Your task to perform on an android device: empty trash in the gmail app Image 0: 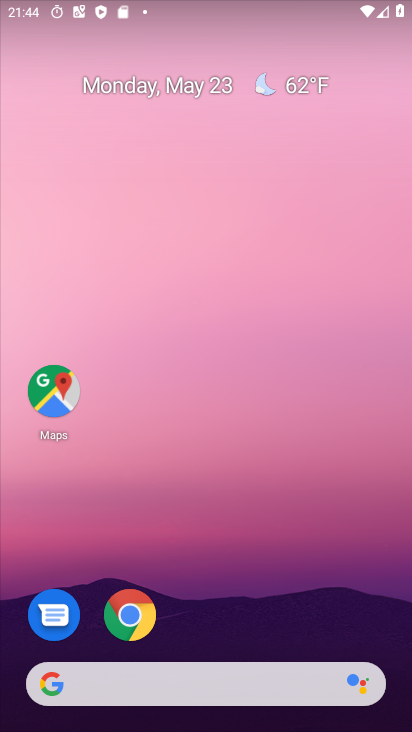
Step 0: drag from (265, 548) to (262, 115)
Your task to perform on an android device: empty trash in the gmail app Image 1: 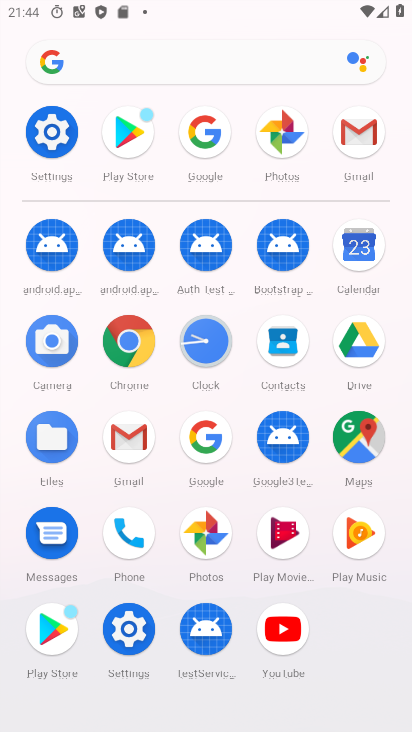
Step 1: click (133, 437)
Your task to perform on an android device: empty trash in the gmail app Image 2: 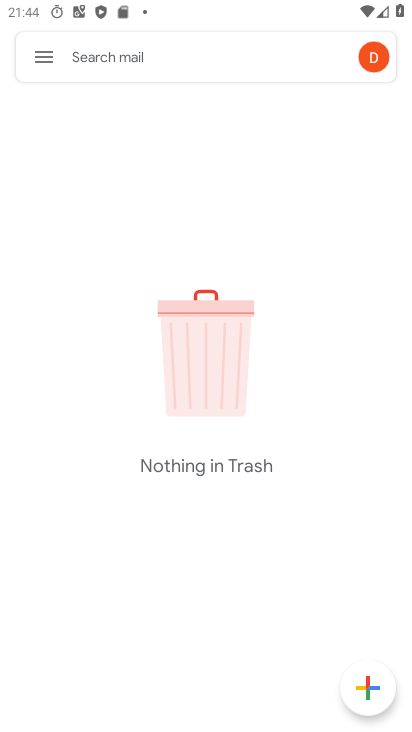
Step 2: click (41, 63)
Your task to perform on an android device: empty trash in the gmail app Image 3: 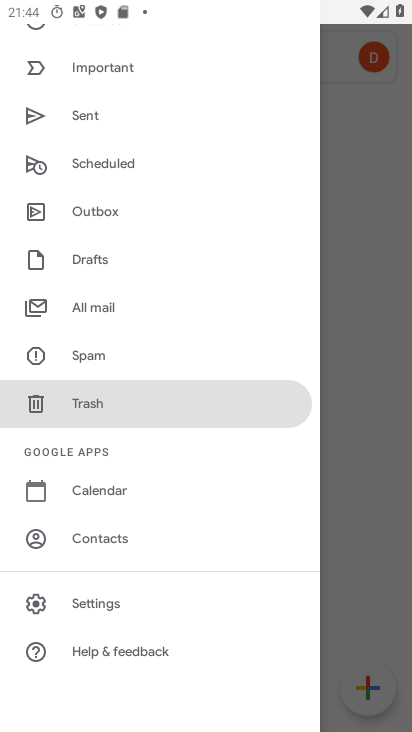
Step 3: drag from (151, 239) to (166, 352)
Your task to perform on an android device: empty trash in the gmail app Image 4: 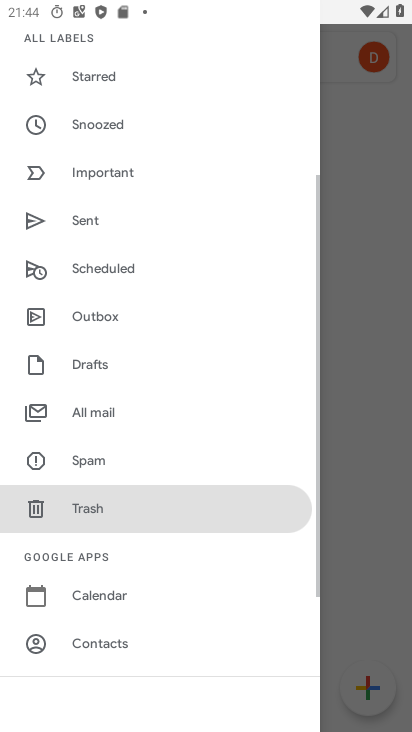
Step 4: click (97, 502)
Your task to perform on an android device: empty trash in the gmail app Image 5: 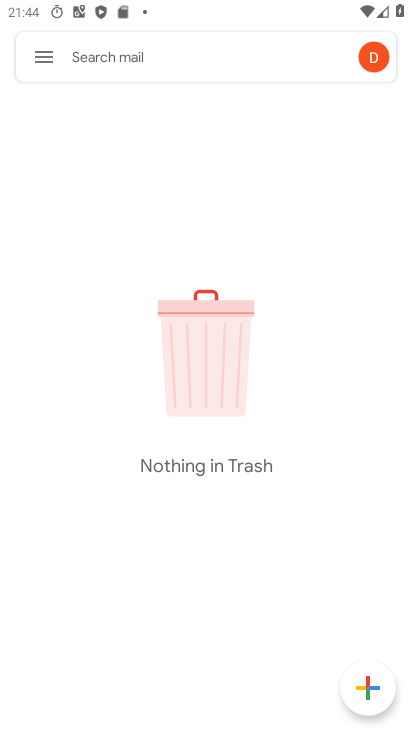
Step 5: task complete